Your task to perform on an android device: Empty the shopping cart on costco.com. Add razer kraken to the cart on costco.com Image 0: 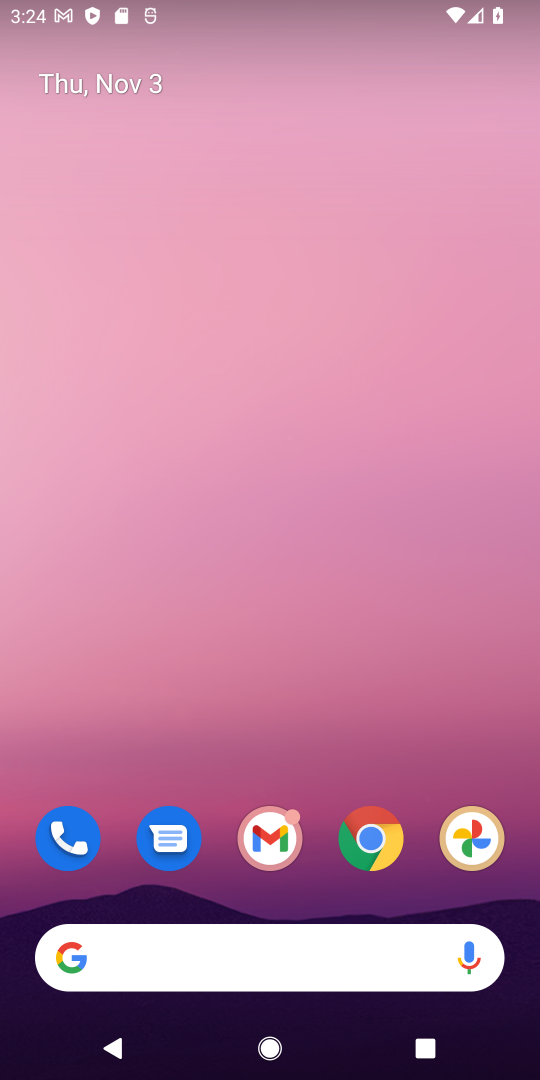
Step 0: drag from (318, 901) to (341, 138)
Your task to perform on an android device: Empty the shopping cart on costco.com. Add razer kraken to the cart on costco.com Image 1: 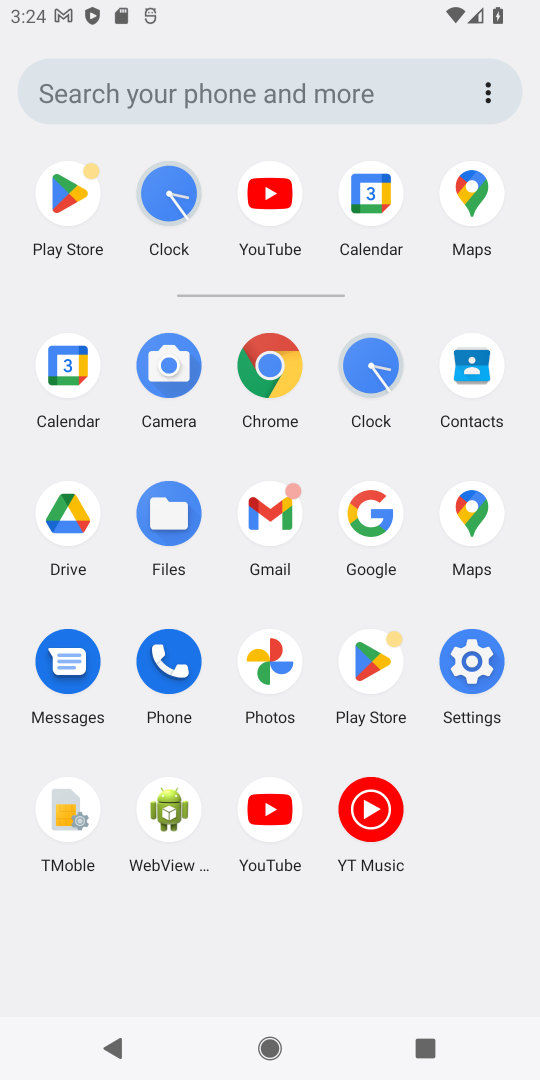
Step 1: click (258, 363)
Your task to perform on an android device: Empty the shopping cart on costco.com. Add razer kraken to the cart on costco.com Image 2: 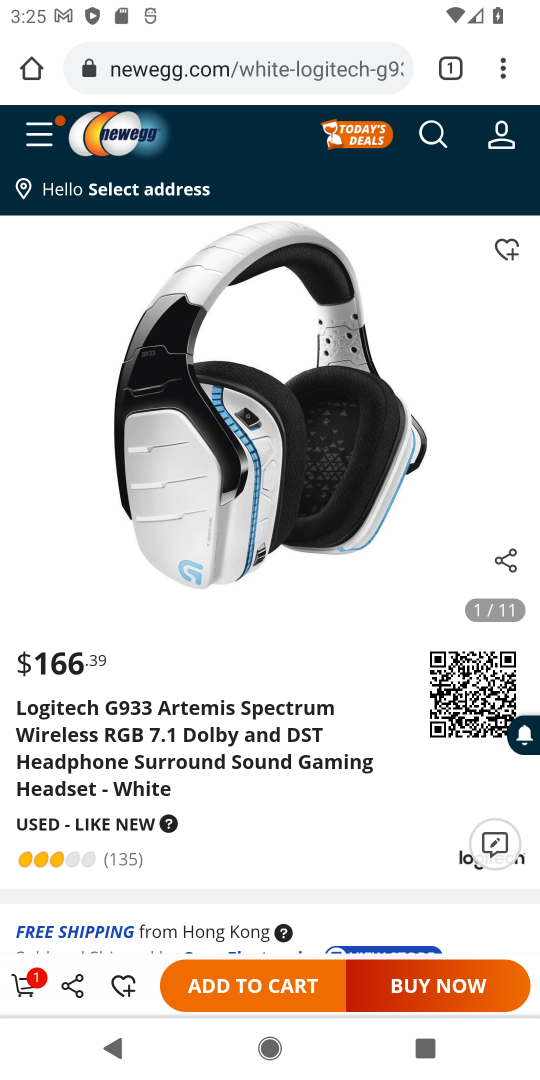
Step 2: click (227, 56)
Your task to perform on an android device: Empty the shopping cart on costco.com. Add razer kraken to the cart on costco.com Image 3: 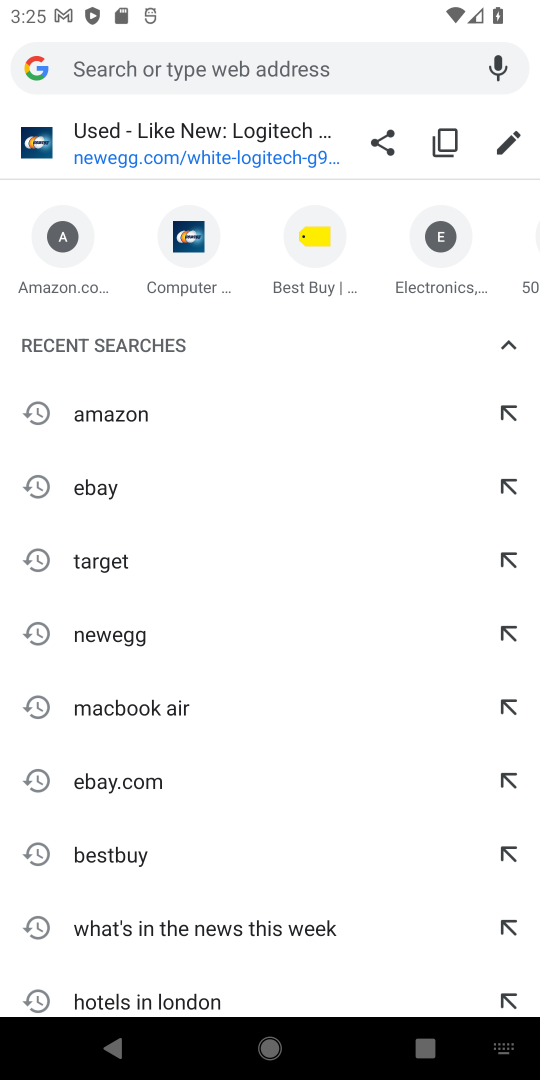
Step 3: type "costco.com"
Your task to perform on an android device: Empty the shopping cart on costco.com. Add razer kraken to the cart on costco.com Image 4: 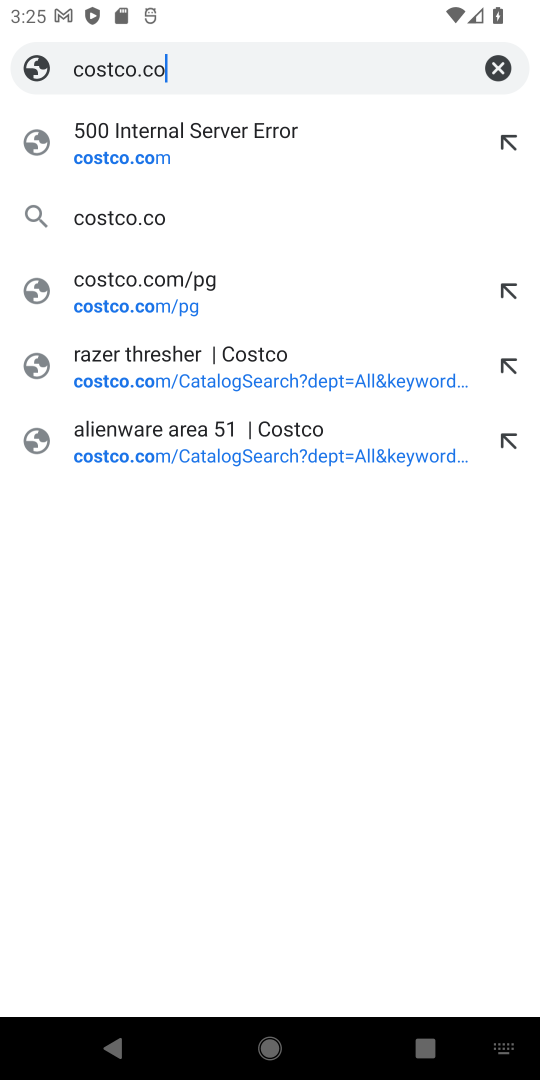
Step 4: press enter
Your task to perform on an android device: Empty the shopping cart on costco.com. Add razer kraken to the cart on costco.com Image 5: 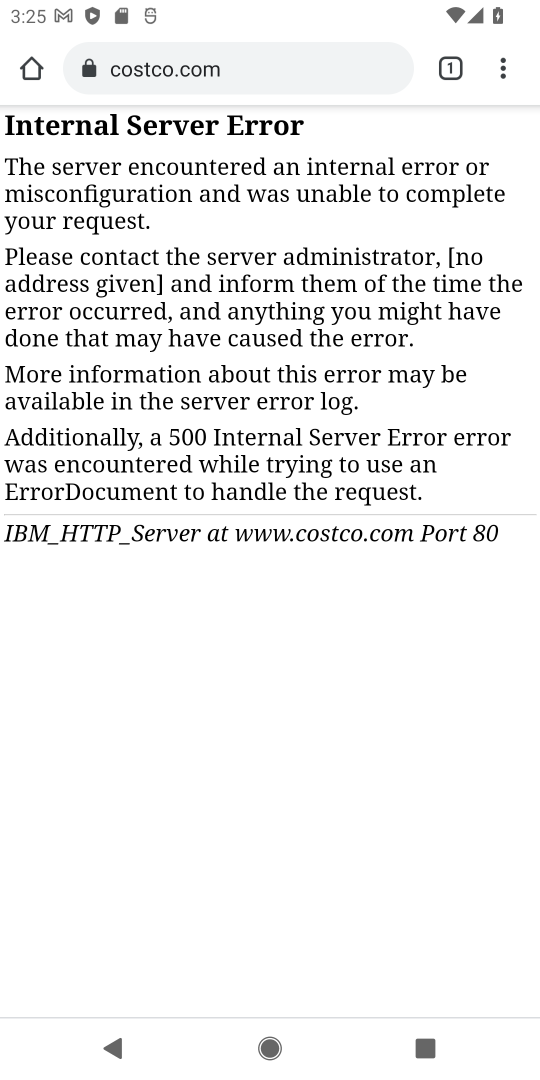
Step 5: task complete